Your task to perform on an android device: turn on showing notifications on the lock screen Image 0: 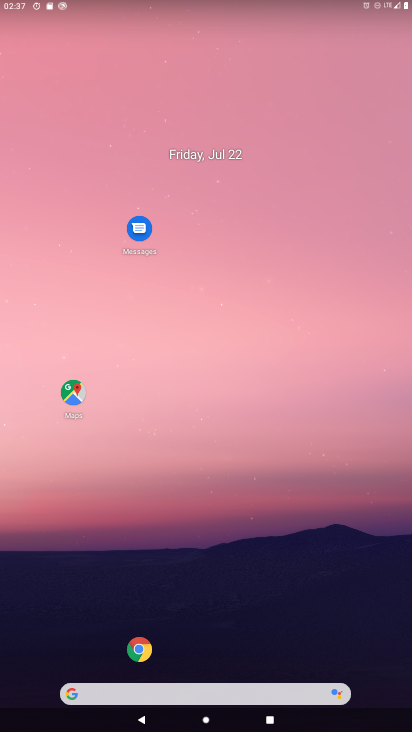
Step 0: drag from (187, 279) to (209, 215)
Your task to perform on an android device: turn on showing notifications on the lock screen Image 1: 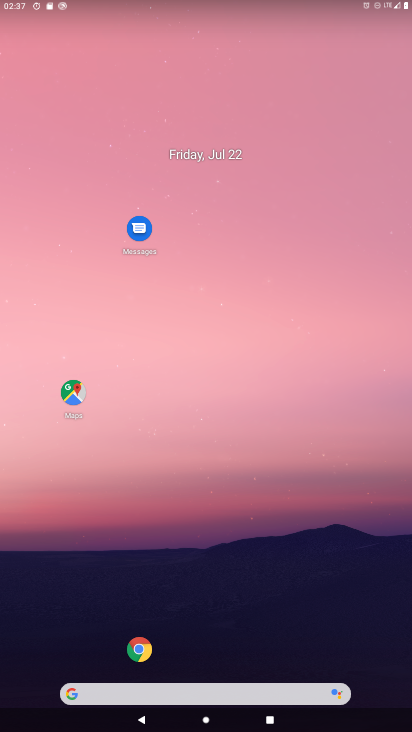
Step 1: drag from (33, 704) to (322, 41)
Your task to perform on an android device: turn on showing notifications on the lock screen Image 2: 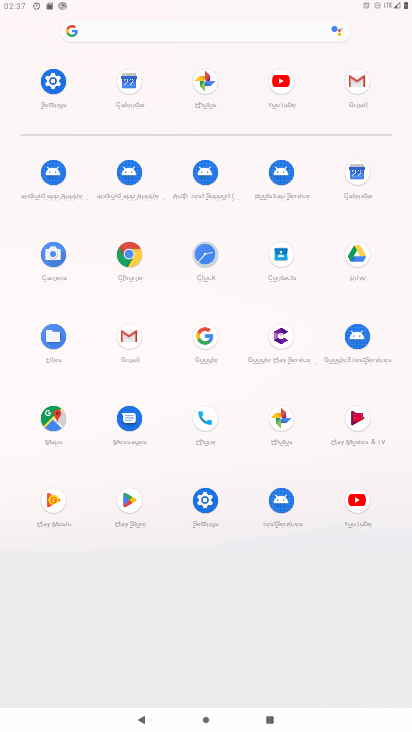
Step 2: click (196, 503)
Your task to perform on an android device: turn on showing notifications on the lock screen Image 3: 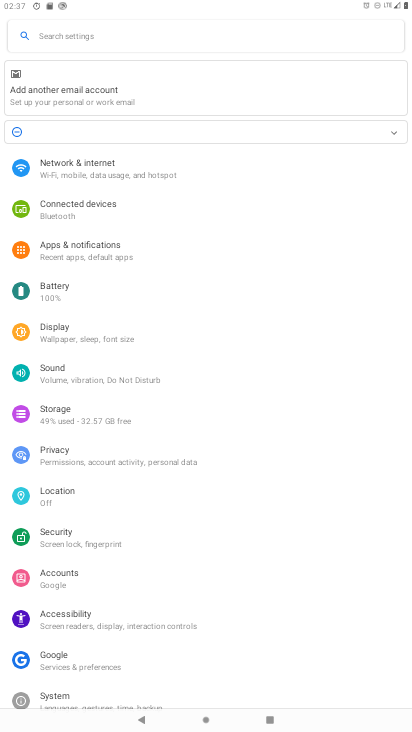
Step 3: click (88, 243)
Your task to perform on an android device: turn on showing notifications on the lock screen Image 4: 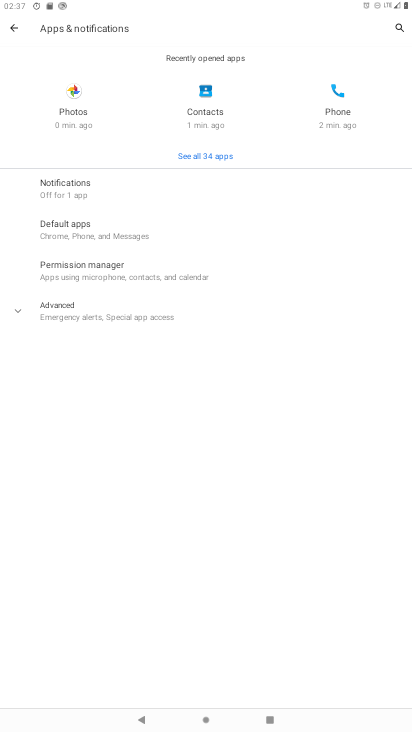
Step 4: click (95, 313)
Your task to perform on an android device: turn on showing notifications on the lock screen Image 5: 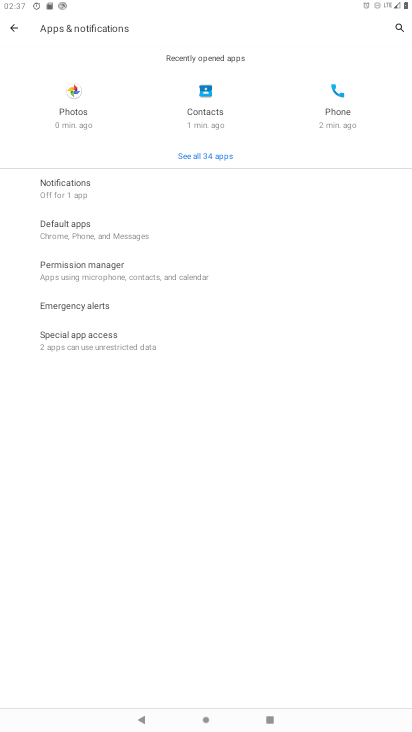
Step 5: click (88, 339)
Your task to perform on an android device: turn on showing notifications on the lock screen Image 6: 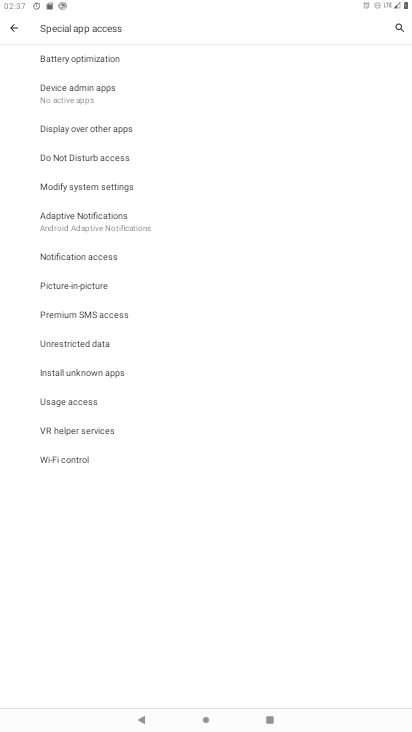
Step 6: click (7, 33)
Your task to perform on an android device: turn on showing notifications on the lock screen Image 7: 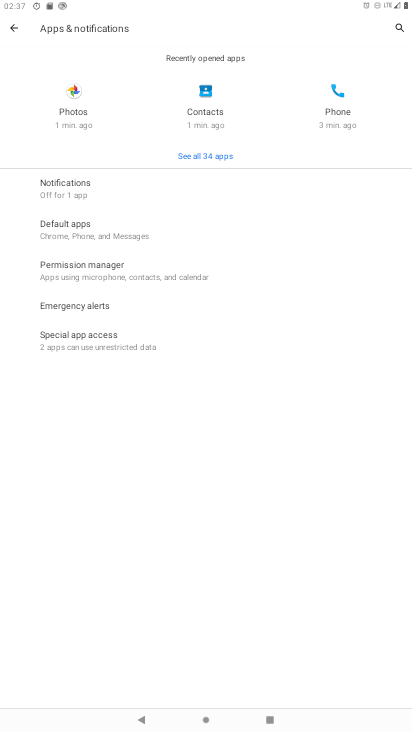
Step 7: click (92, 194)
Your task to perform on an android device: turn on showing notifications on the lock screen Image 8: 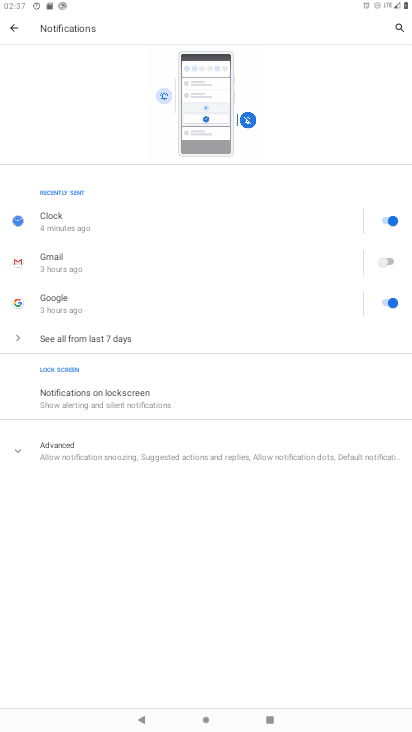
Step 8: click (109, 389)
Your task to perform on an android device: turn on showing notifications on the lock screen Image 9: 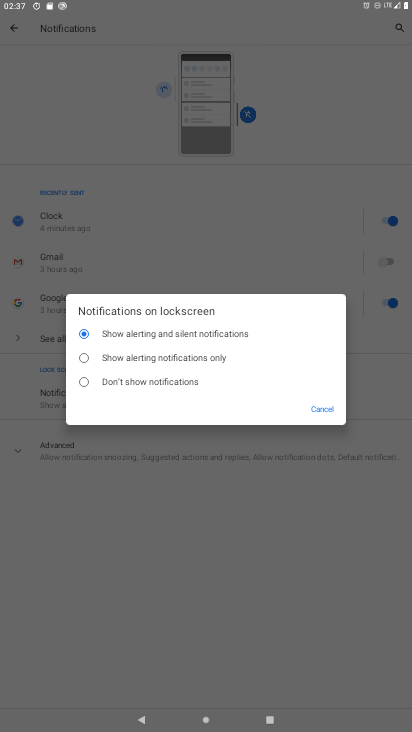
Step 9: task complete